Your task to perform on an android device: Play the last video I watched on Youtube Image 0: 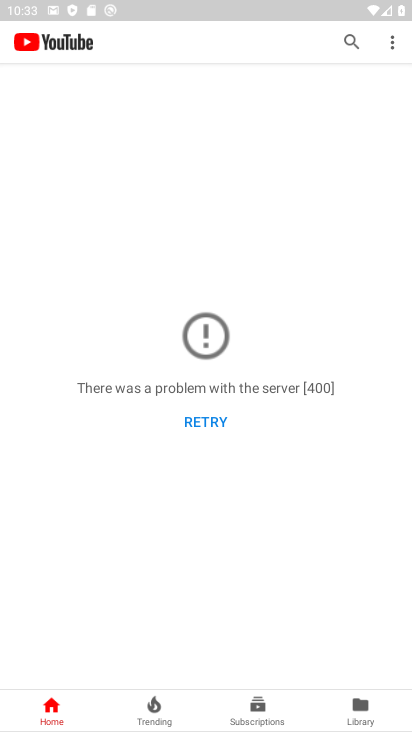
Step 0: click (348, 43)
Your task to perform on an android device: Play the last video I watched on Youtube Image 1: 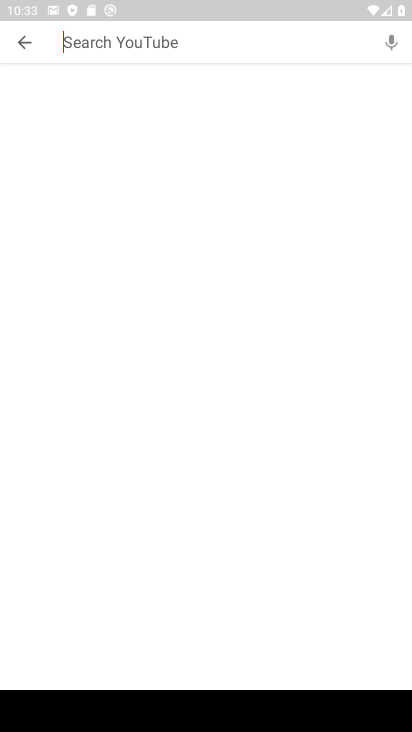
Step 1: task complete